Your task to perform on an android device: Show me popular videos on Youtube Image 0: 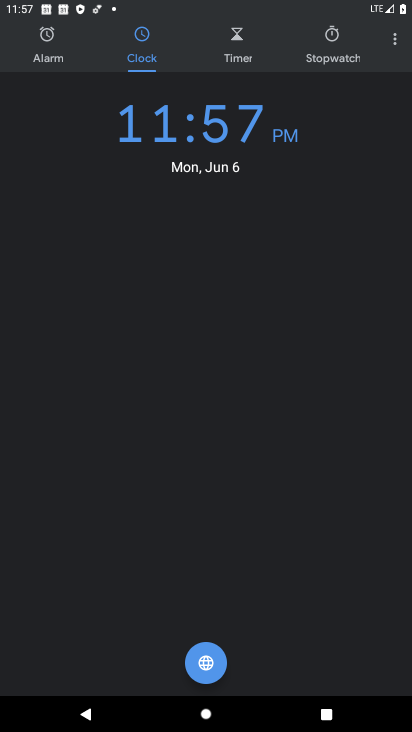
Step 0: press home button
Your task to perform on an android device: Show me popular videos on Youtube Image 1: 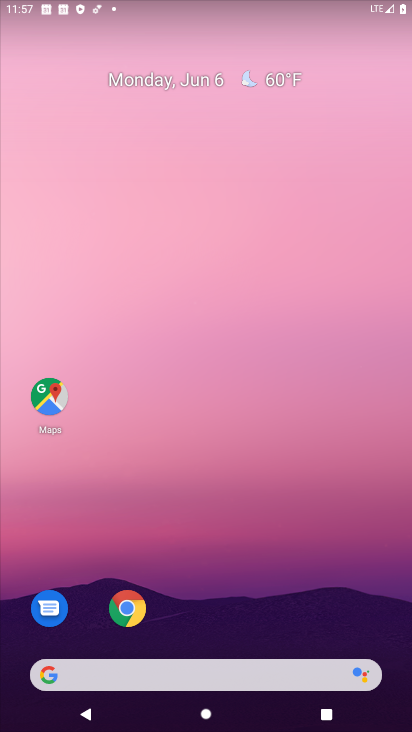
Step 1: drag from (268, 608) to (251, 68)
Your task to perform on an android device: Show me popular videos on Youtube Image 2: 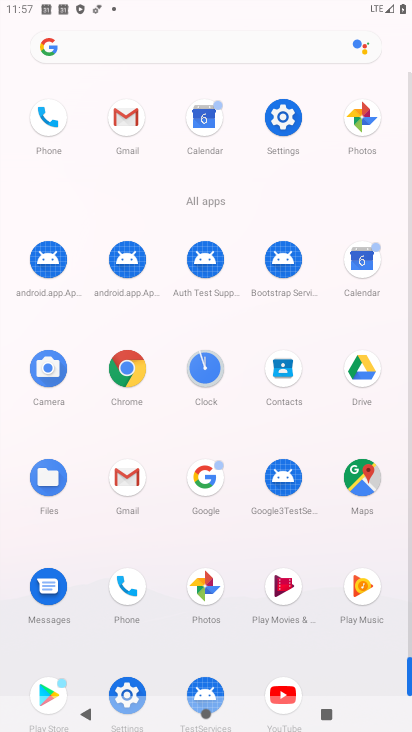
Step 2: drag from (283, 659) to (313, 326)
Your task to perform on an android device: Show me popular videos on Youtube Image 3: 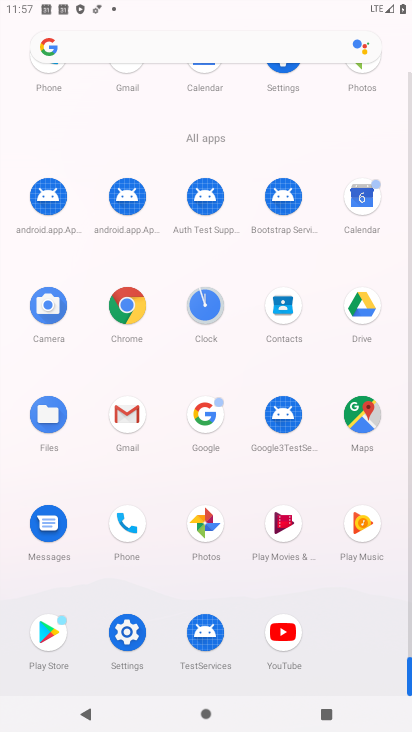
Step 3: click (281, 642)
Your task to perform on an android device: Show me popular videos on Youtube Image 4: 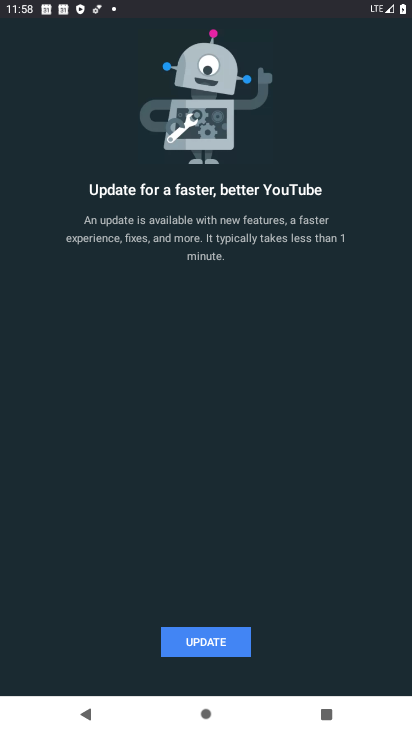
Step 4: click (233, 647)
Your task to perform on an android device: Show me popular videos on Youtube Image 5: 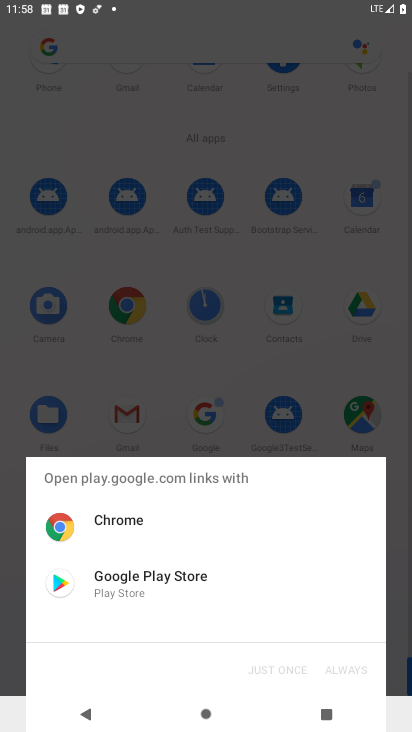
Step 5: click (132, 594)
Your task to perform on an android device: Show me popular videos on Youtube Image 6: 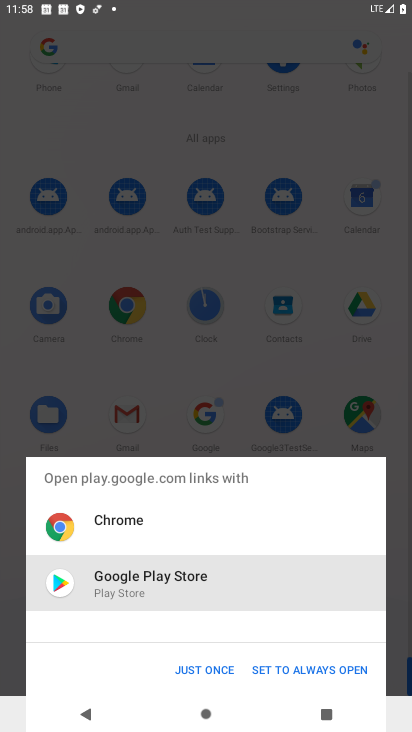
Step 6: click (215, 674)
Your task to perform on an android device: Show me popular videos on Youtube Image 7: 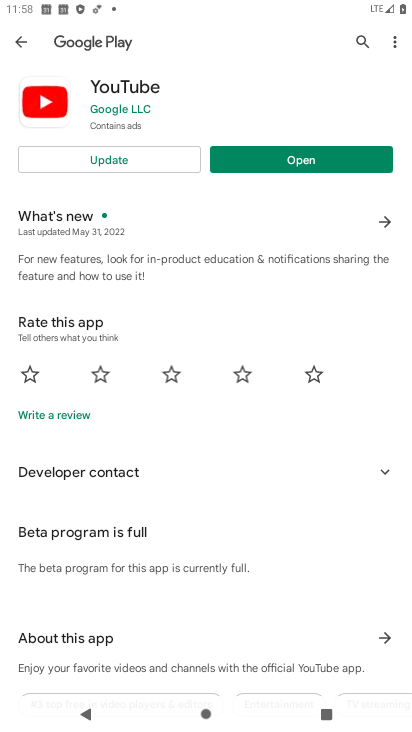
Step 7: click (113, 160)
Your task to perform on an android device: Show me popular videos on Youtube Image 8: 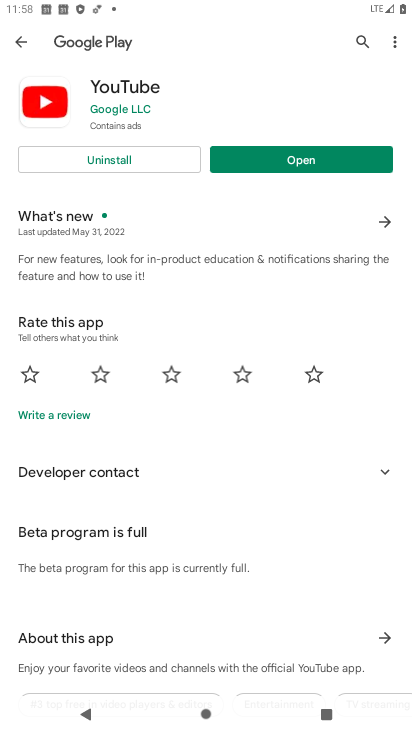
Step 8: click (308, 166)
Your task to perform on an android device: Show me popular videos on Youtube Image 9: 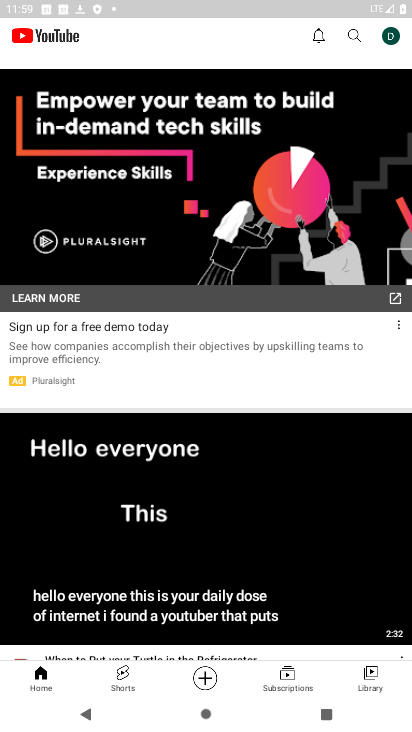
Step 9: drag from (174, 229) to (196, 730)
Your task to perform on an android device: Show me popular videos on Youtube Image 10: 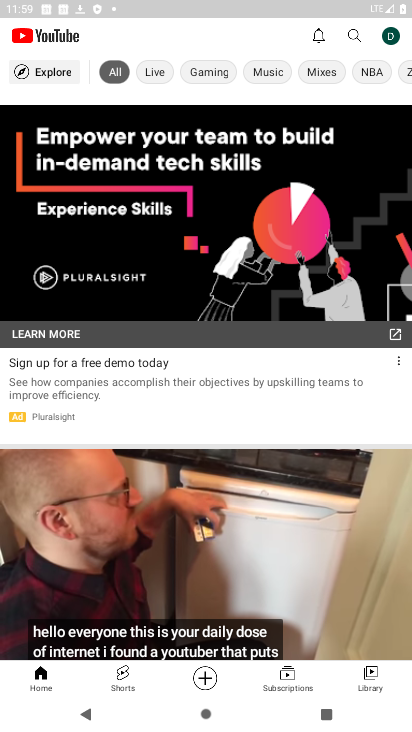
Step 10: click (47, 68)
Your task to perform on an android device: Show me popular videos on Youtube Image 11: 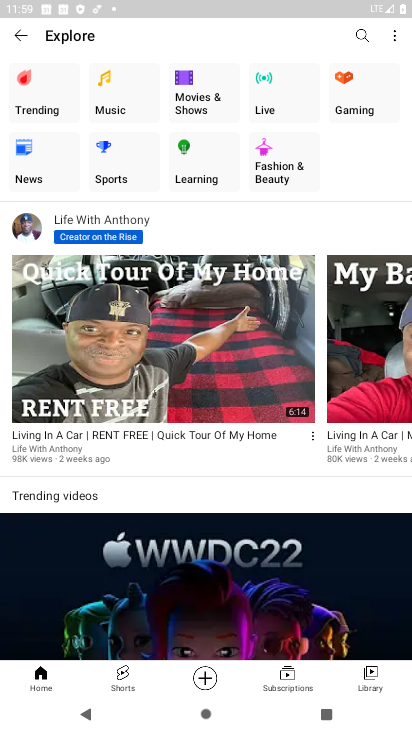
Step 11: click (31, 106)
Your task to perform on an android device: Show me popular videos on Youtube Image 12: 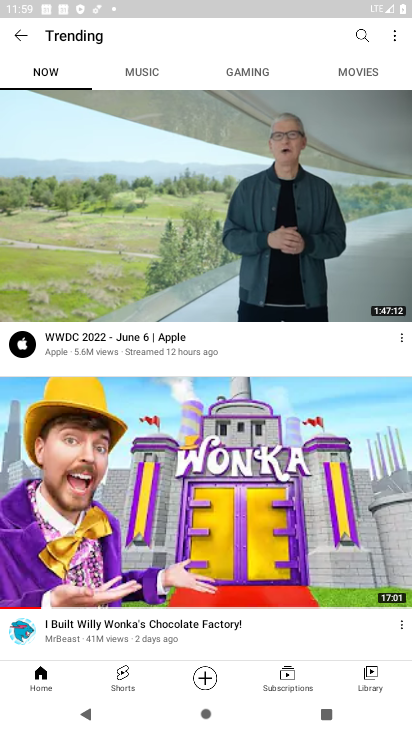
Step 12: task complete